Your task to perform on an android device: Open Wikipedia Image 0: 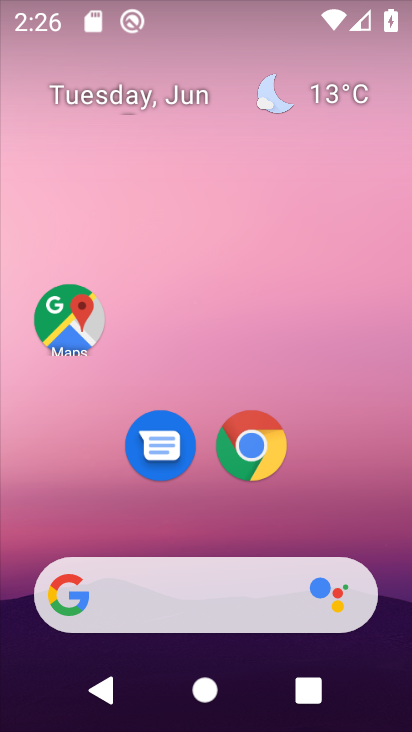
Step 0: click (361, 718)
Your task to perform on an android device: Open Wikipedia Image 1: 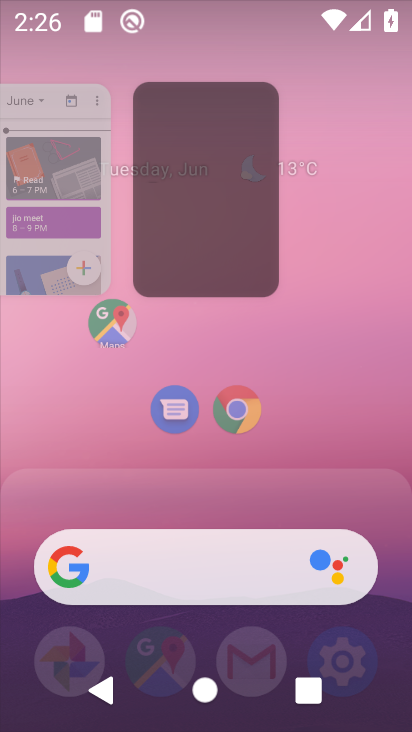
Step 1: click (209, 593)
Your task to perform on an android device: Open Wikipedia Image 2: 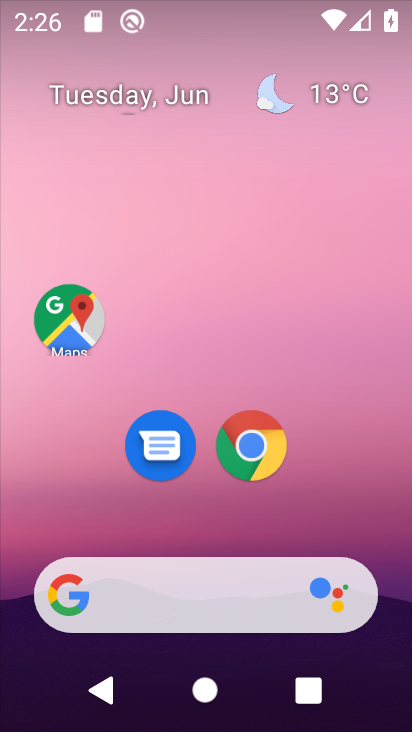
Step 2: click (214, 612)
Your task to perform on an android device: Open Wikipedia Image 3: 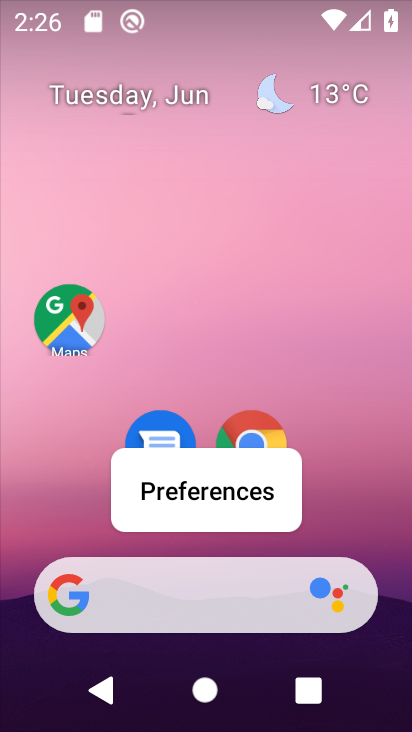
Step 3: click (206, 595)
Your task to perform on an android device: Open Wikipedia Image 4: 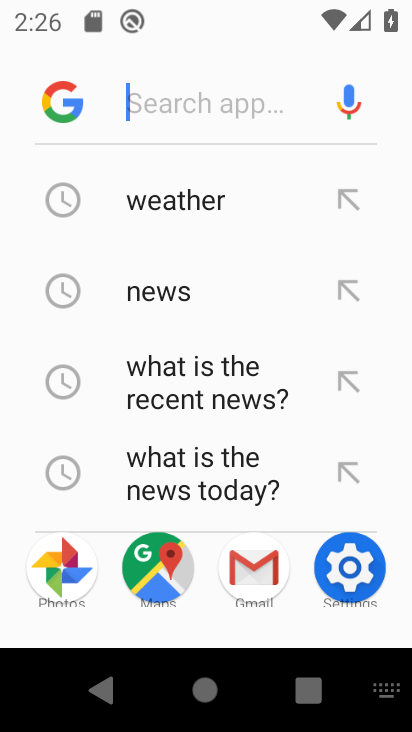
Step 4: type "wikipedia"
Your task to perform on an android device: Open Wikipedia Image 5: 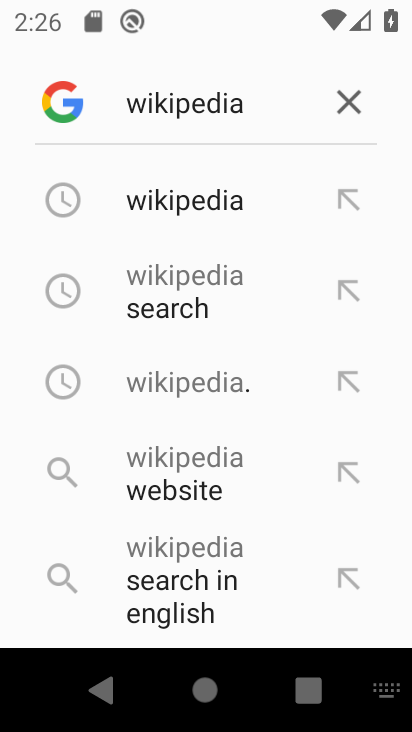
Step 5: click (205, 195)
Your task to perform on an android device: Open Wikipedia Image 6: 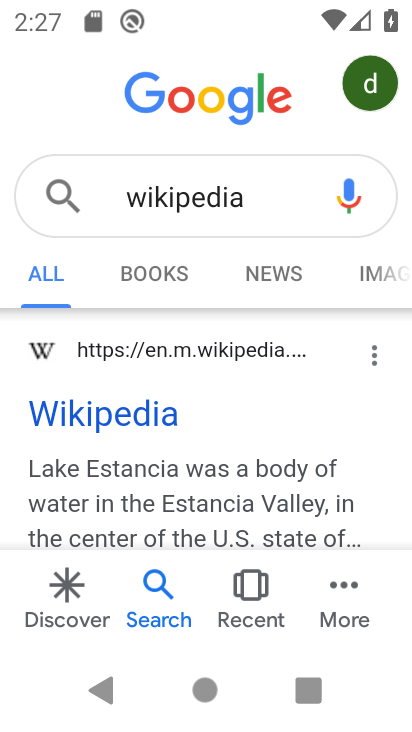
Step 6: click (256, 330)
Your task to perform on an android device: Open Wikipedia Image 7: 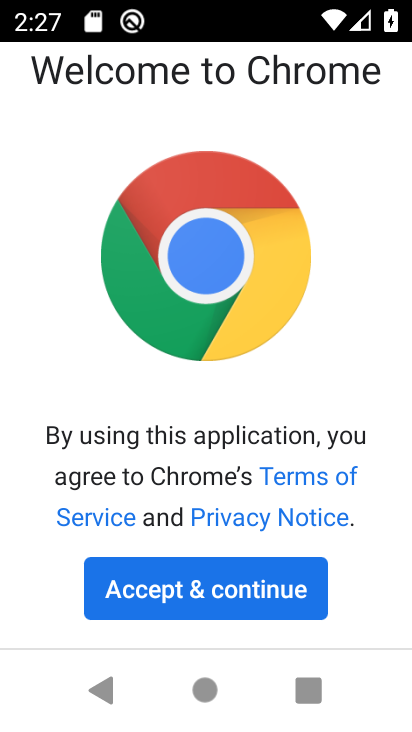
Step 7: click (219, 593)
Your task to perform on an android device: Open Wikipedia Image 8: 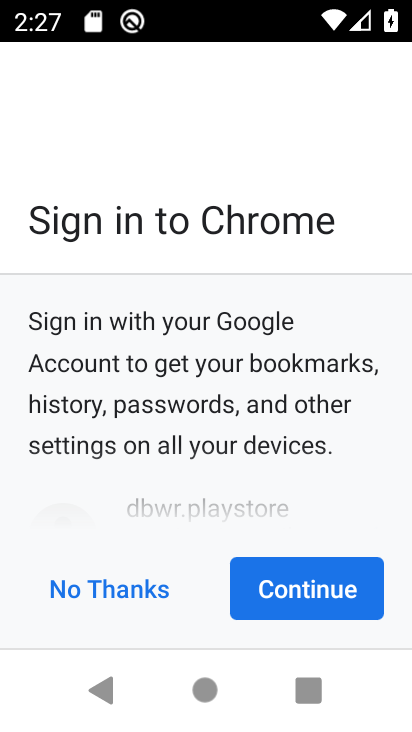
Step 8: click (344, 600)
Your task to perform on an android device: Open Wikipedia Image 9: 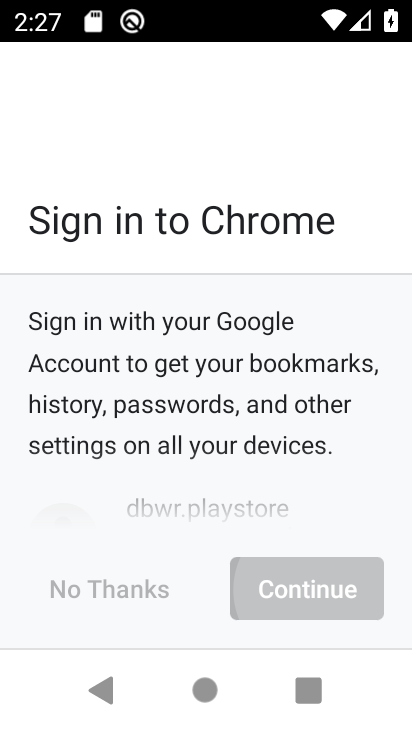
Step 9: click (344, 600)
Your task to perform on an android device: Open Wikipedia Image 10: 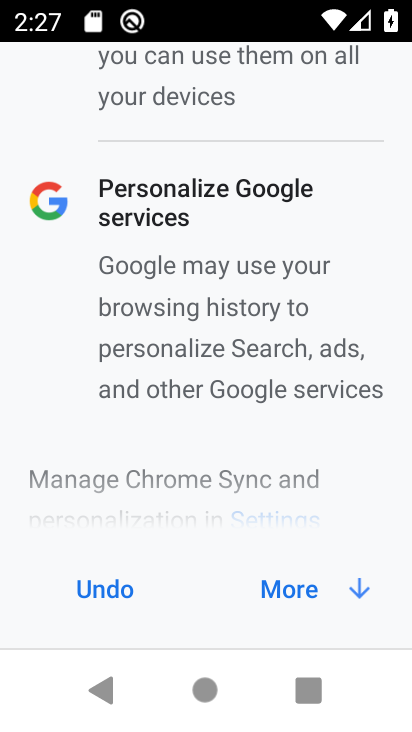
Step 10: click (344, 600)
Your task to perform on an android device: Open Wikipedia Image 11: 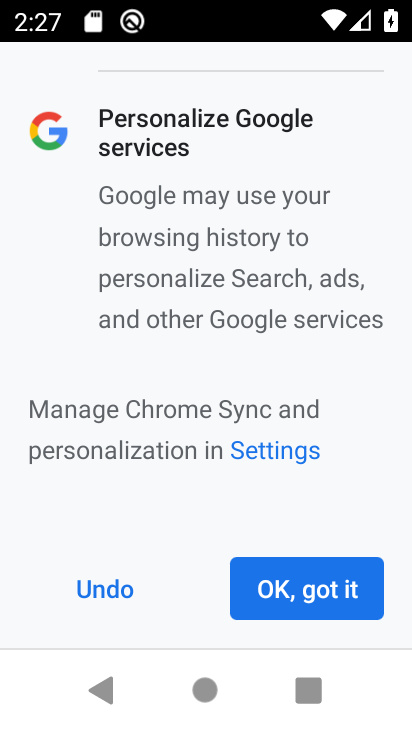
Step 11: click (344, 600)
Your task to perform on an android device: Open Wikipedia Image 12: 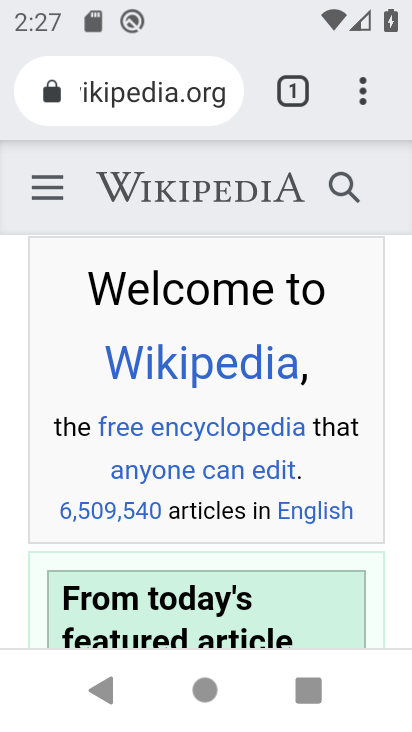
Step 12: task complete